Your task to perform on an android device: toggle notification dots Image 0: 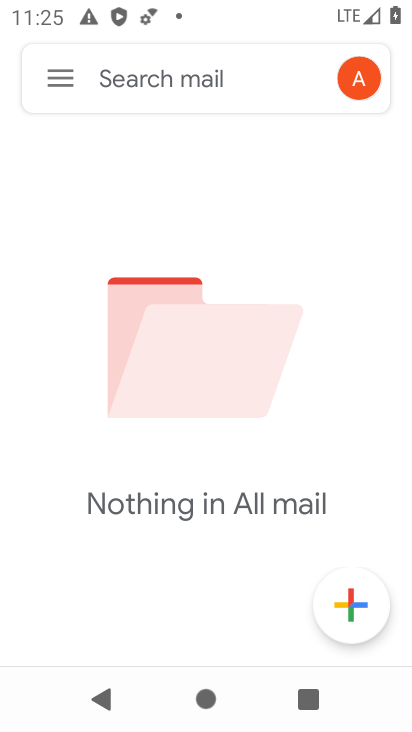
Step 0: press home button
Your task to perform on an android device: toggle notification dots Image 1: 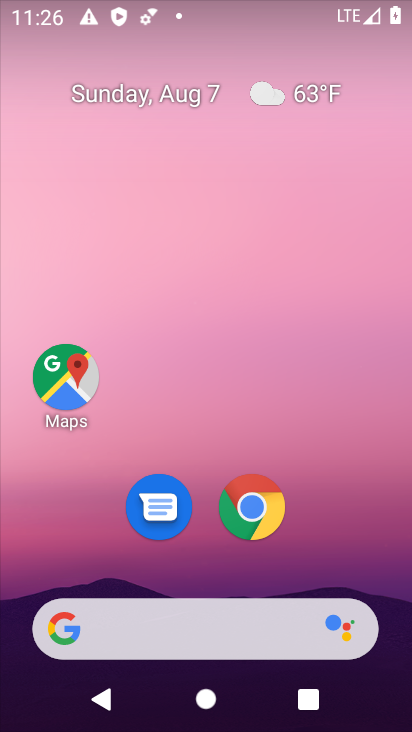
Step 1: drag from (232, 588) to (219, 299)
Your task to perform on an android device: toggle notification dots Image 2: 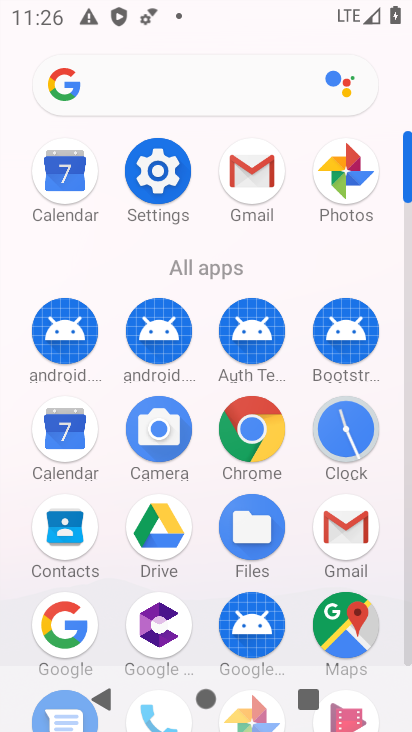
Step 2: click (172, 181)
Your task to perform on an android device: toggle notification dots Image 3: 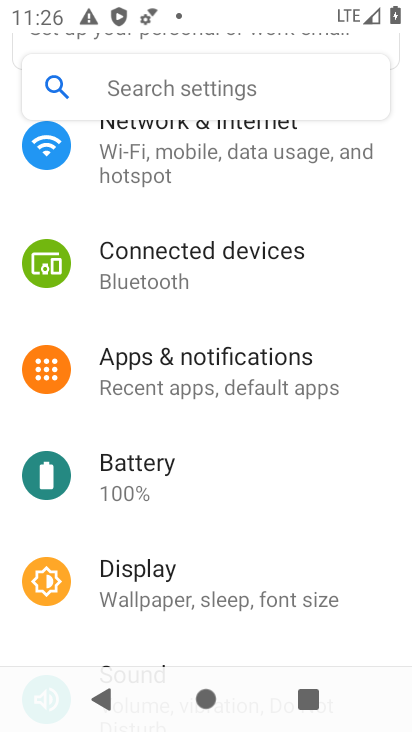
Step 3: click (260, 364)
Your task to perform on an android device: toggle notification dots Image 4: 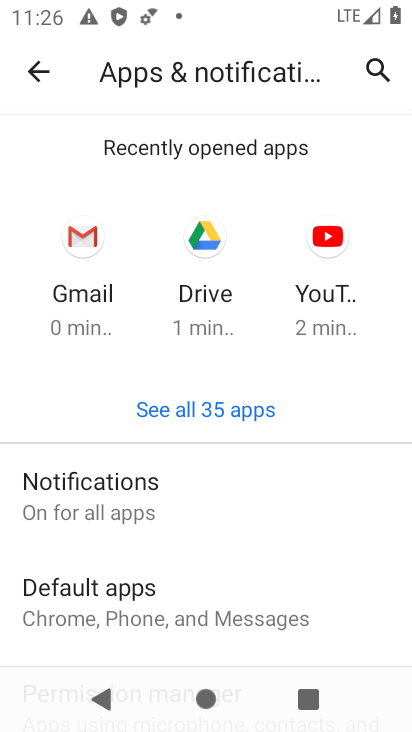
Step 4: click (128, 503)
Your task to perform on an android device: toggle notification dots Image 5: 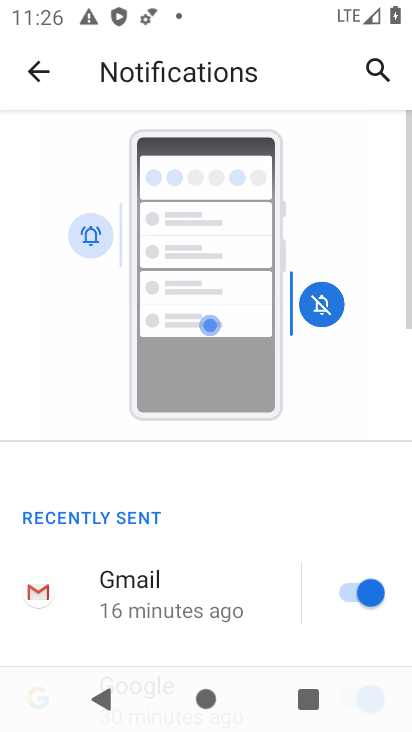
Step 5: drag from (234, 507) to (216, 236)
Your task to perform on an android device: toggle notification dots Image 6: 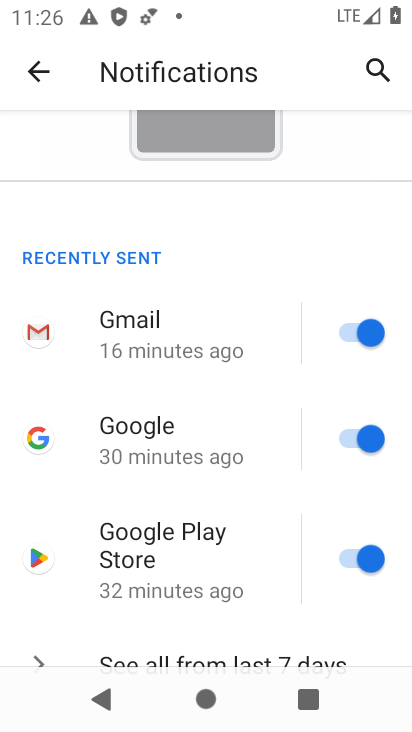
Step 6: drag from (284, 627) to (260, 337)
Your task to perform on an android device: toggle notification dots Image 7: 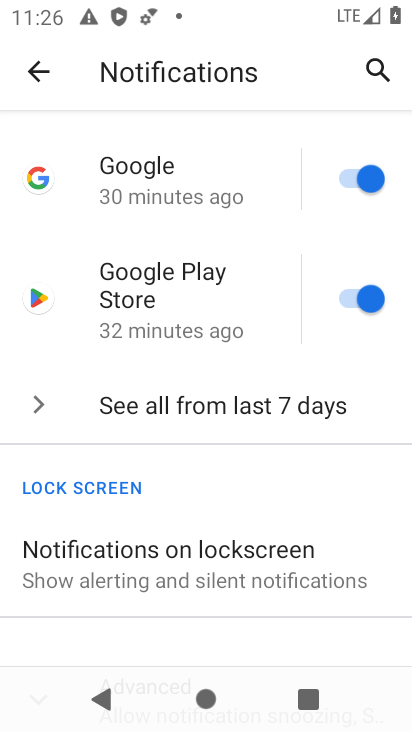
Step 7: drag from (289, 629) to (256, 346)
Your task to perform on an android device: toggle notification dots Image 8: 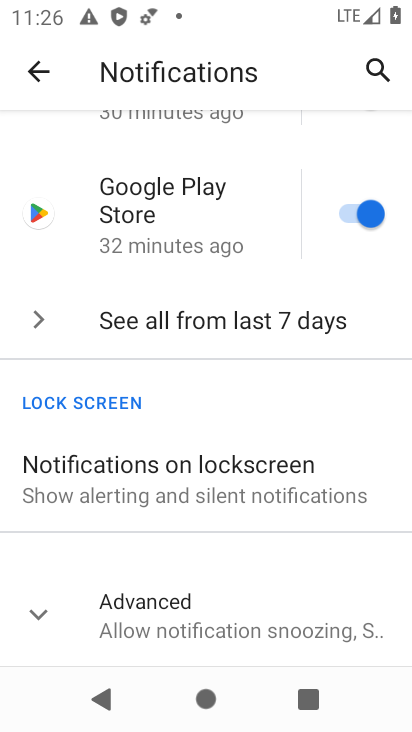
Step 8: click (161, 600)
Your task to perform on an android device: toggle notification dots Image 9: 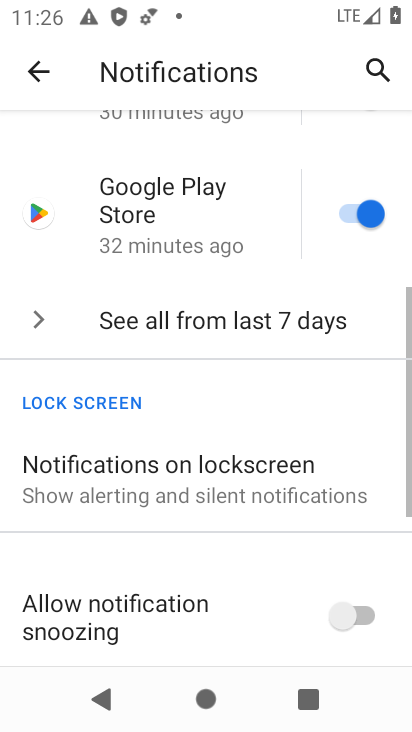
Step 9: drag from (259, 582) to (204, 145)
Your task to perform on an android device: toggle notification dots Image 10: 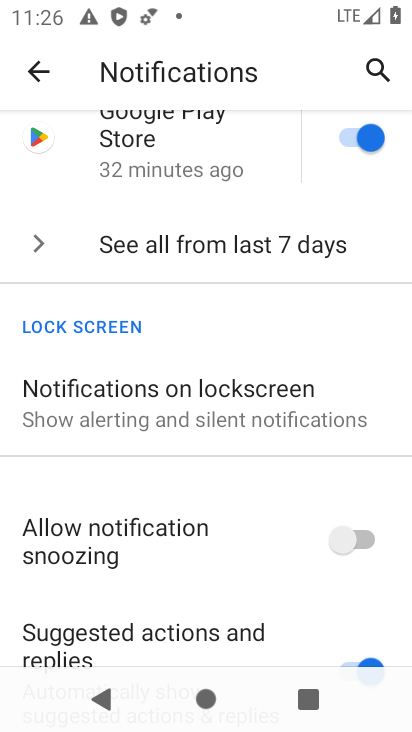
Step 10: drag from (278, 594) to (251, 337)
Your task to perform on an android device: toggle notification dots Image 11: 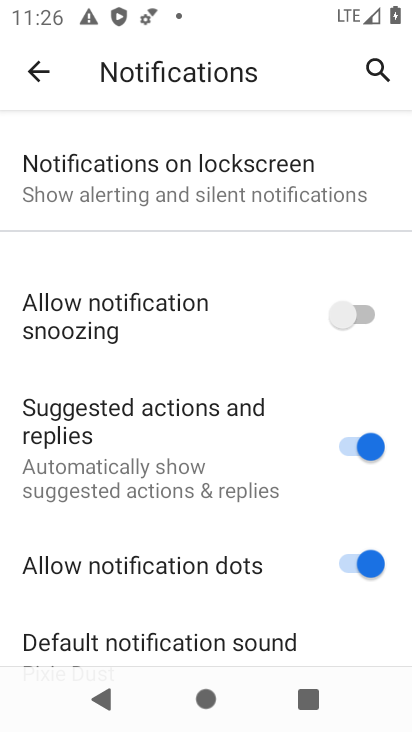
Step 11: click (370, 577)
Your task to perform on an android device: toggle notification dots Image 12: 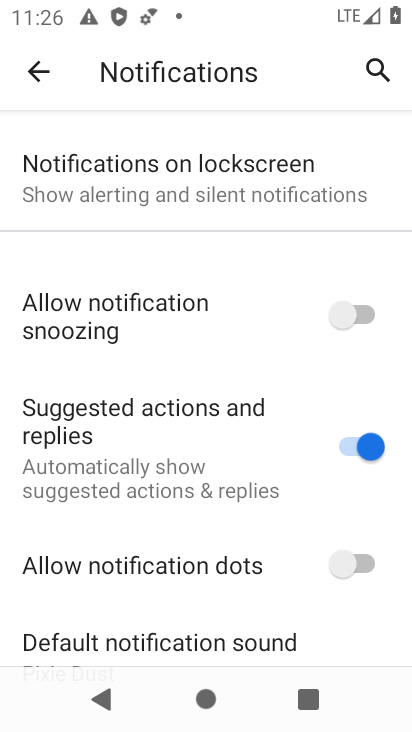
Step 12: task complete